Your task to perform on an android device: turn on improve location accuracy Image 0: 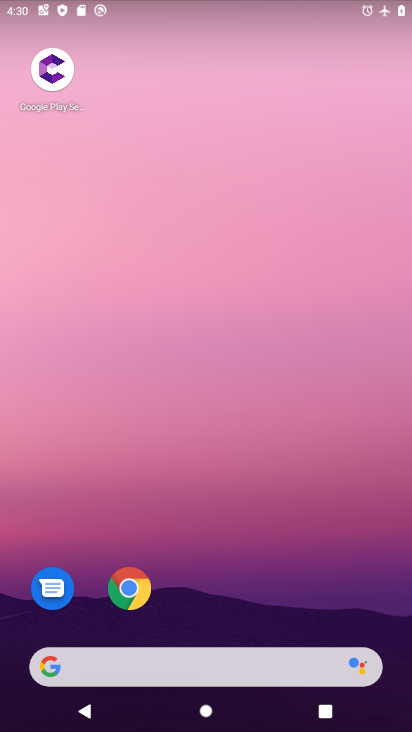
Step 0: press home button
Your task to perform on an android device: turn on improve location accuracy Image 1: 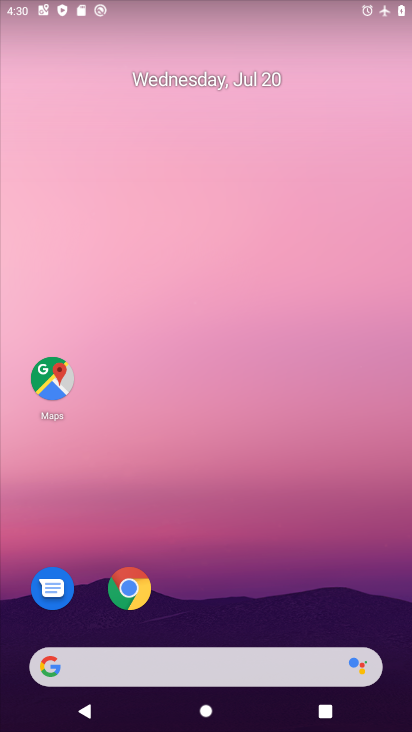
Step 1: drag from (308, 614) to (375, 46)
Your task to perform on an android device: turn on improve location accuracy Image 2: 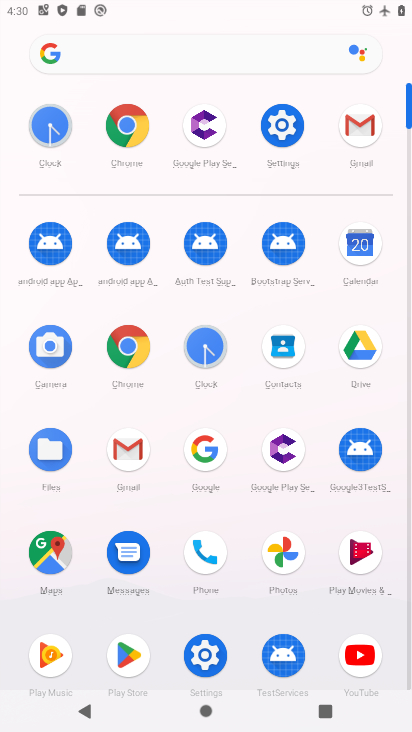
Step 2: click (285, 133)
Your task to perform on an android device: turn on improve location accuracy Image 3: 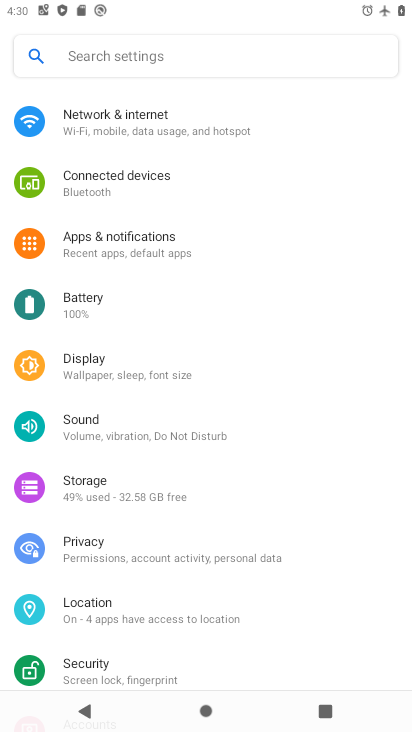
Step 3: click (101, 607)
Your task to perform on an android device: turn on improve location accuracy Image 4: 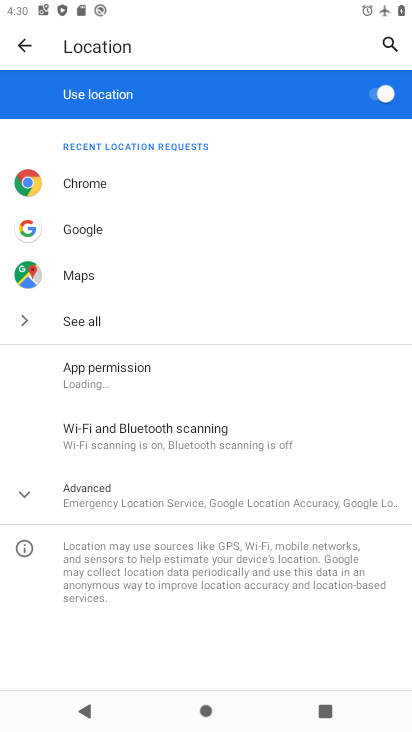
Step 4: click (87, 501)
Your task to perform on an android device: turn on improve location accuracy Image 5: 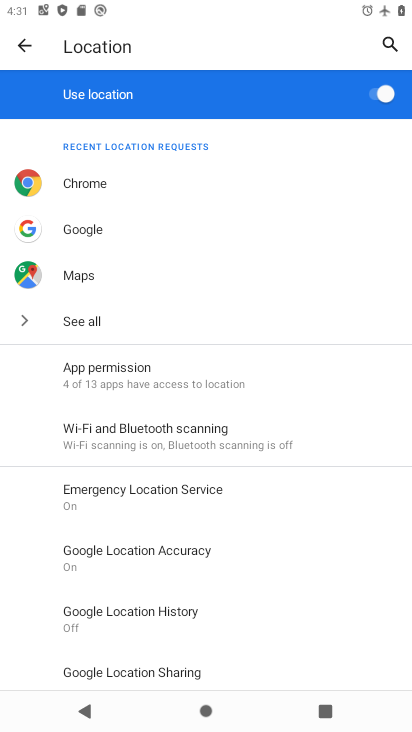
Step 5: click (158, 552)
Your task to perform on an android device: turn on improve location accuracy Image 6: 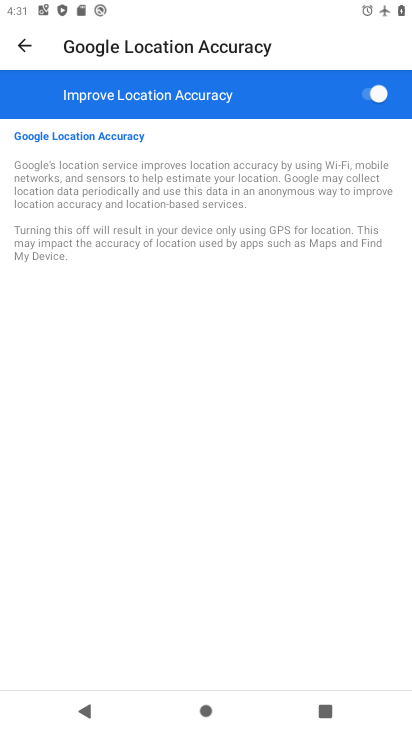
Step 6: task complete